Your task to perform on an android device: Search for Mexican restaurants on Maps Image 0: 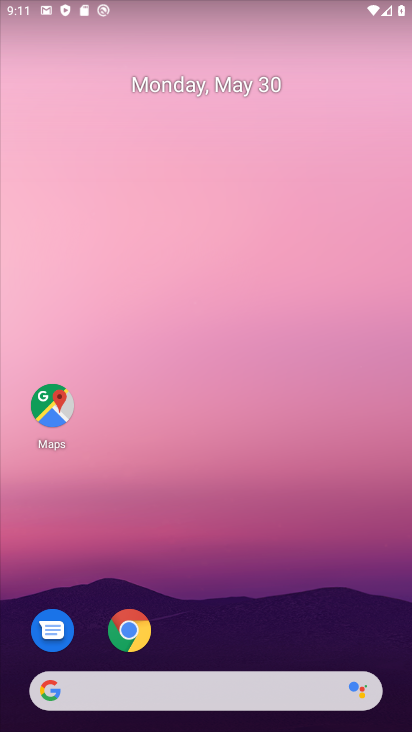
Step 0: drag from (232, 650) to (240, 130)
Your task to perform on an android device: Search for Mexican restaurants on Maps Image 1: 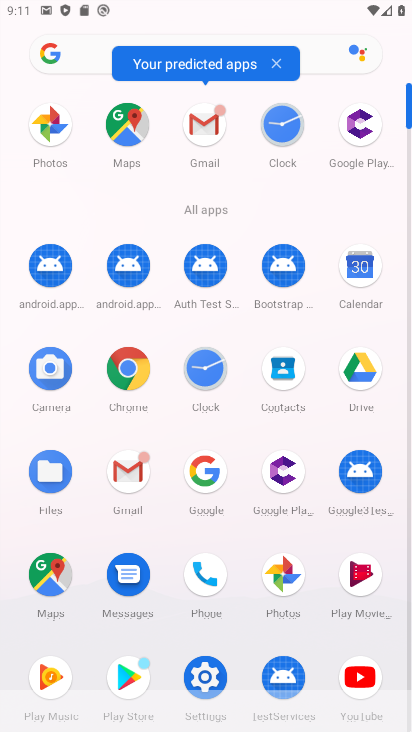
Step 1: click (126, 126)
Your task to perform on an android device: Search for Mexican restaurants on Maps Image 2: 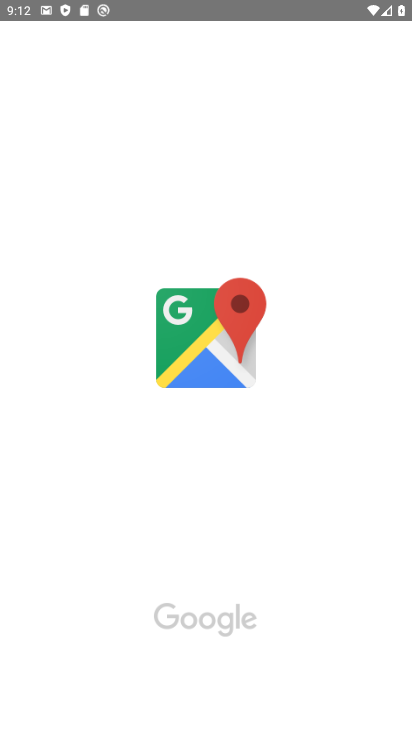
Step 2: task complete